Your task to perform on an android device: Open CNN.com Image 0: 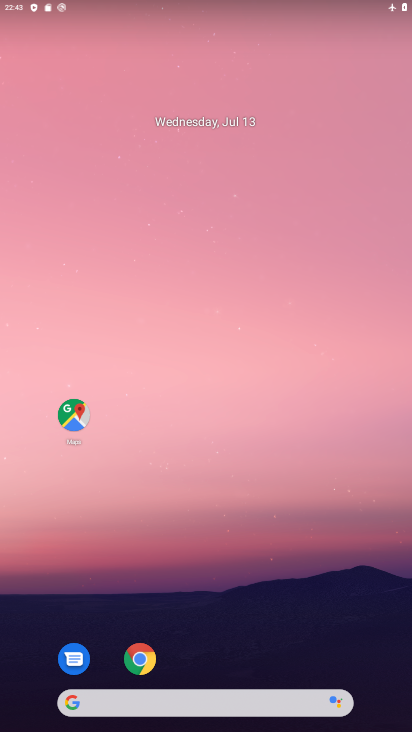
Step 0: click (138, 657)
Your task to perform on an android device: Open CNN.com Image 1: 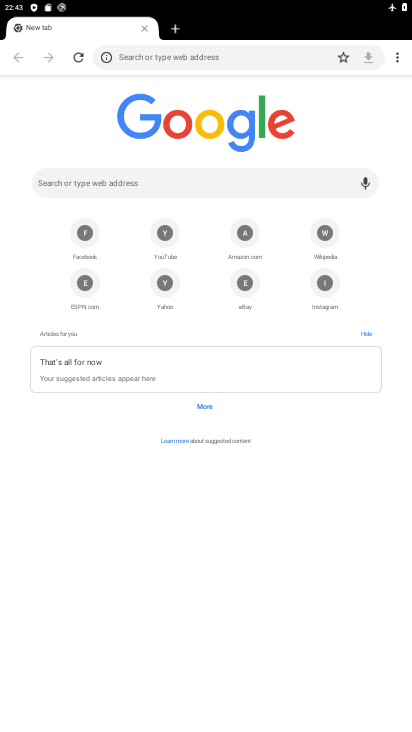
Step 1: click (195, 181)
Your task to perform on an android device: Open CNN.com Image 2: 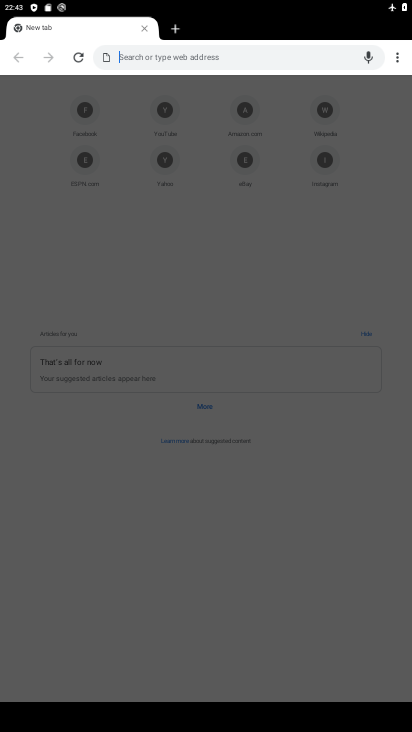
Step 2: type "CNN.com"
Your task to perform on an android device: Open CNN.com Image 3: 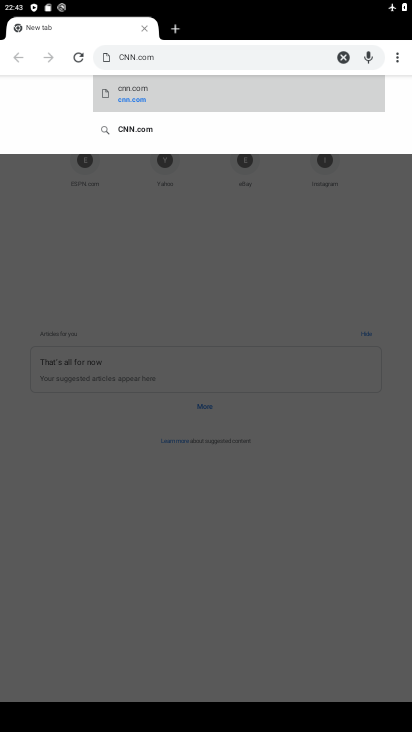
Step 3: click (160, 85)
Your task to perform on an android device: Open CNN.com Image 4: 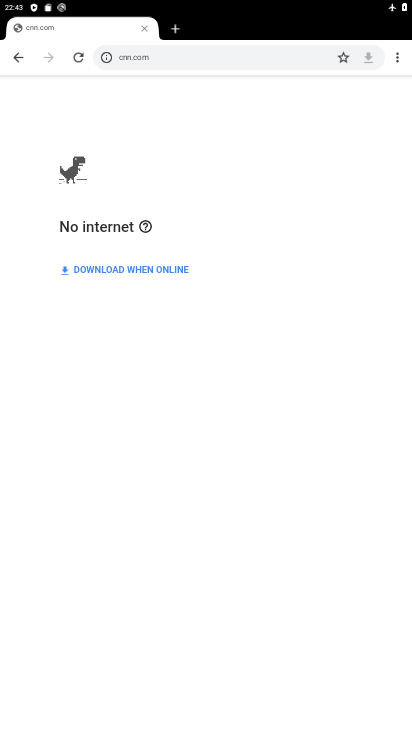
Step 4: task complete